Your task to perform on an android device: remove spam from my inbox in the gmail app Image 0: 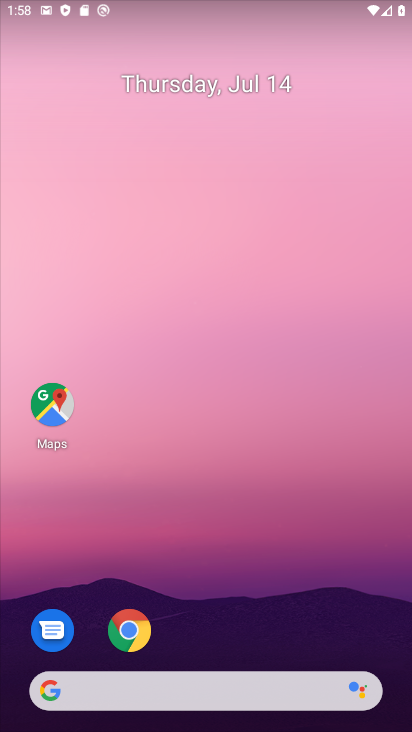
Step 0: drag from (233, 666) to (251, 283)
Your task to perform on an android device: remove spam from my inbox in the gmail app Image 1: 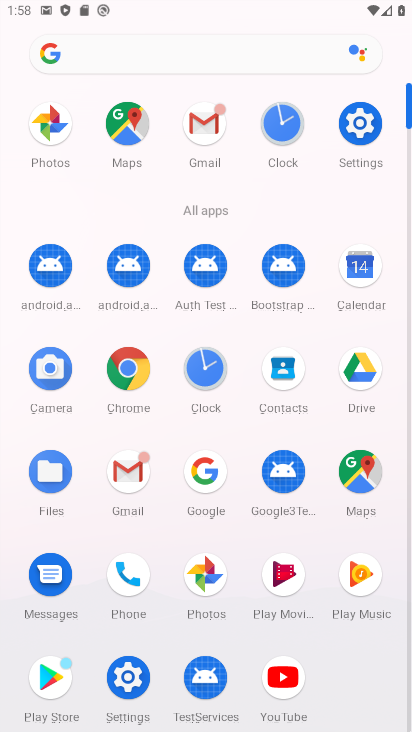
Step 1: click (142, 458)
Your task to perform on an android device: remove spam from my inbox in the gmail app Image 2: 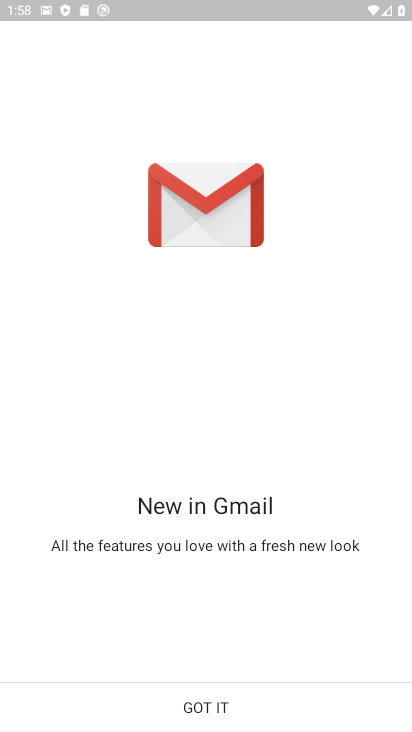
Step 2: click (201, 701)
Your task to perform on an android device: remove spam from my inbox in the gmail app Image 3: 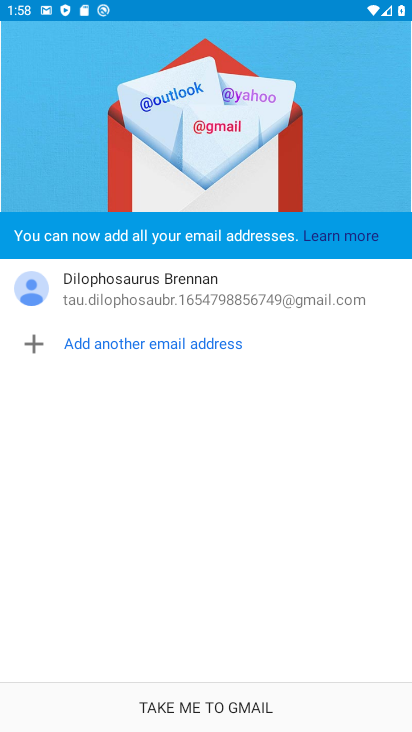
Step 3: click (217, 703)
Your task to perform on an android device: remove spam from my inbox in the gmail app Image 4: 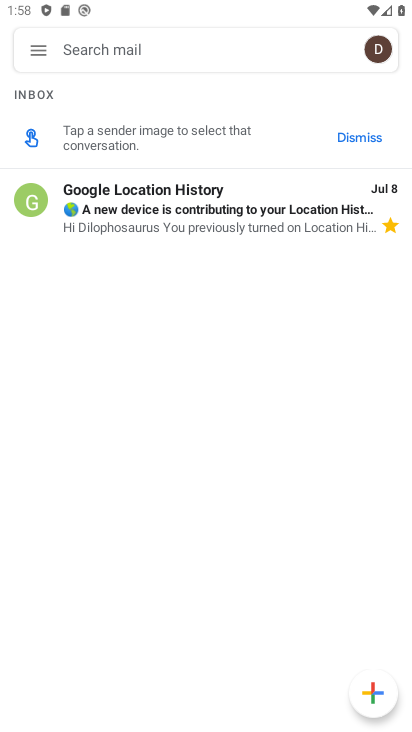
Step 4: click (42, 53)
Your task to perform on an android device: remove spam from my inbox in the gmail app Image 5: 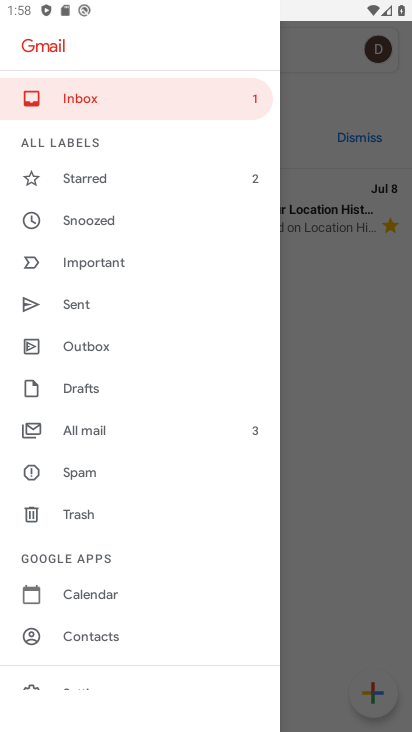
Step 5: click (117, 482)
Your task to perform on an android device: remove spam from my inbox in the gmail app Image 6: 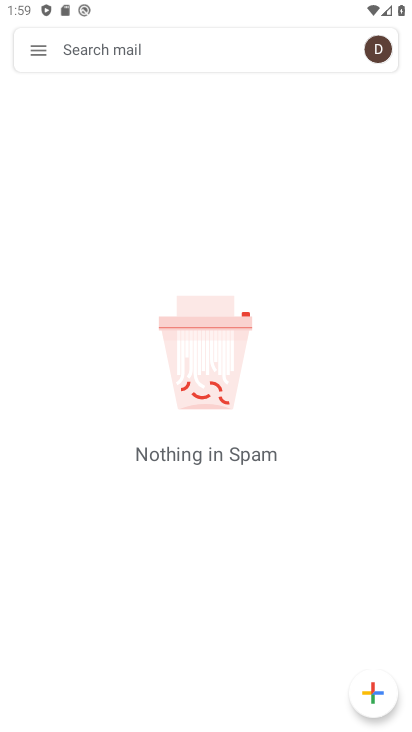
Step 6: task complete